Your task to perform on an android device: Go to Android settings Image 0: 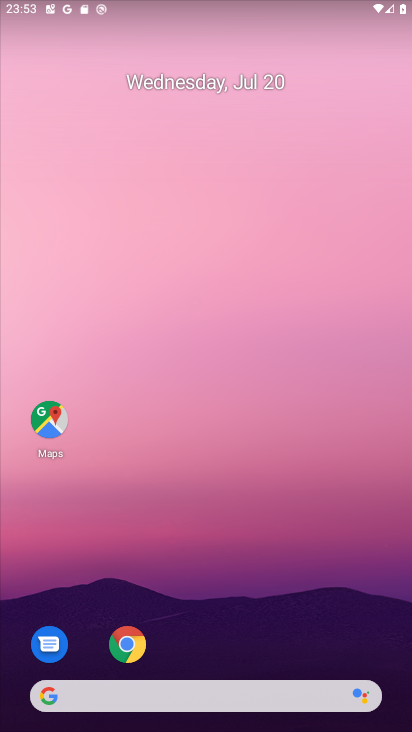
Step 0: drag from (161, 721) to (251, 151)
Your task to perform on an android device: Go to Android settings Image 1: 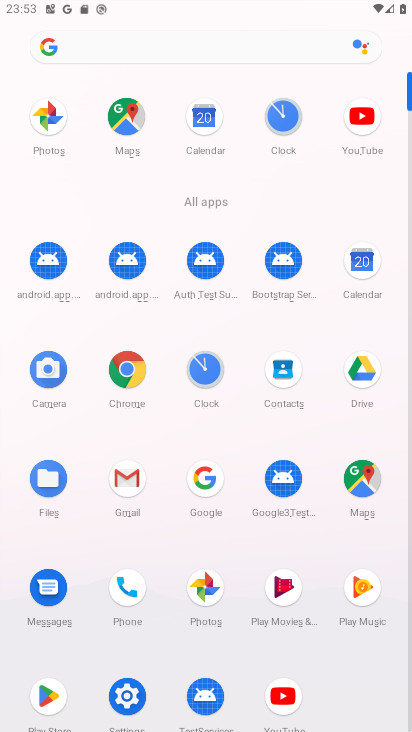
Step 1: click (130, 700)
Your task to perform on an android device: Go to Android settings Image 2: 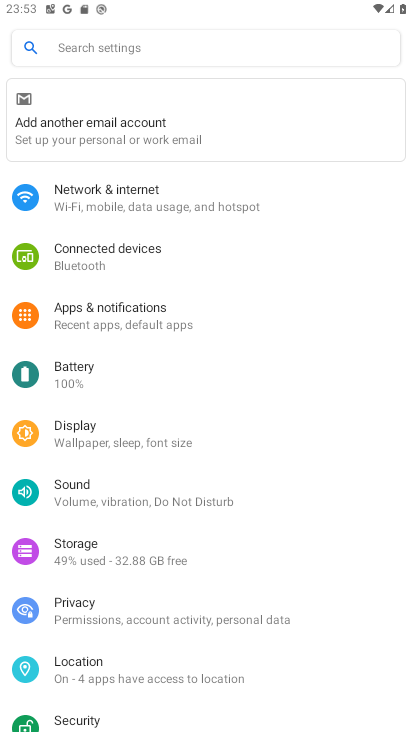
Step 2: drag from (205, 664) to (300, 26)
Your task to perform on an android device: Go to Android settings Image 3: 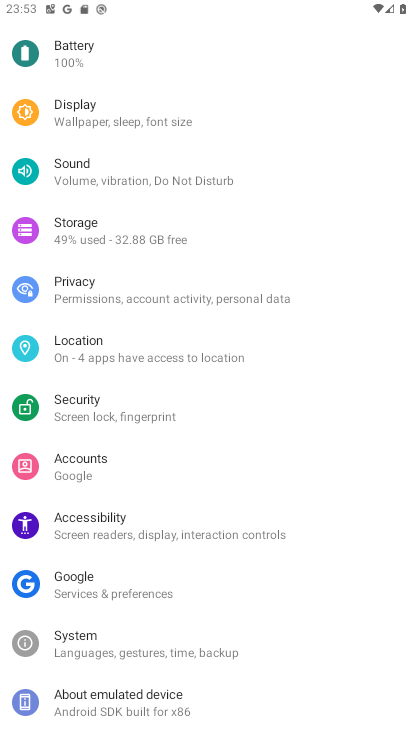
Step 3: drag from (261, 479) to (313, 179)
Your task to perform on an android device: Go to Android settings Image 4: 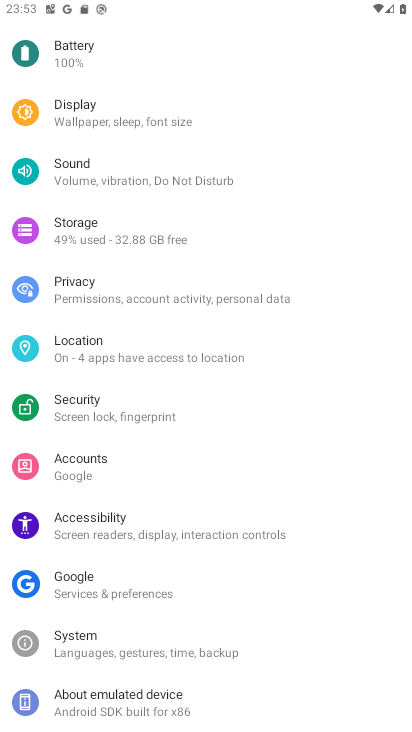
Step 4: click (145, 700)
Your task to perform on an android device: Go to Android settings Image 5: 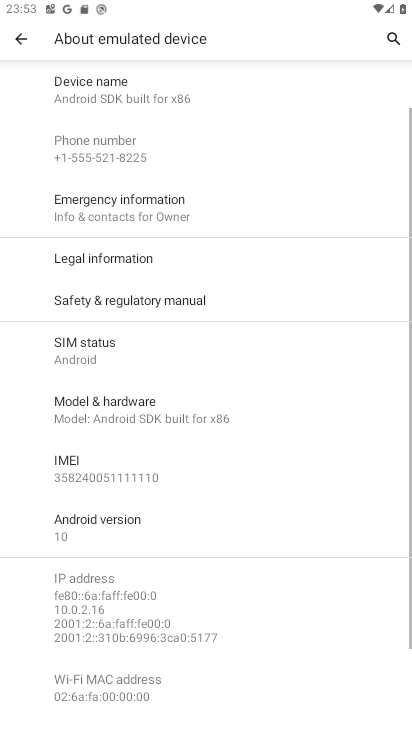
Step 5: task complete